Your task to perform on an android device: change alarm snooze length Image 0: 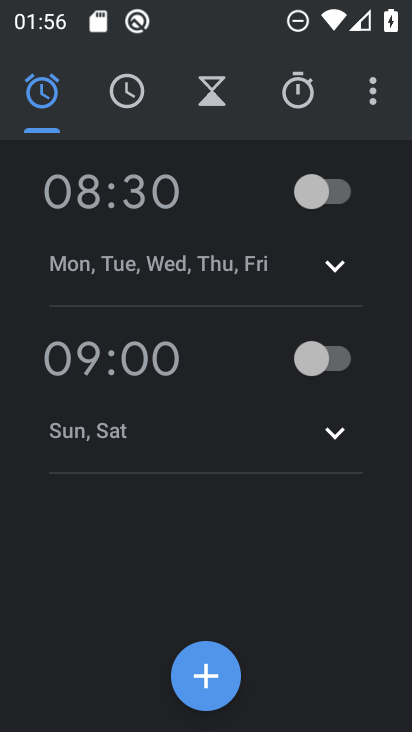
Step 0: click (375, 89)
Your task to perform on an android device: change alarm snooze length Image 1: 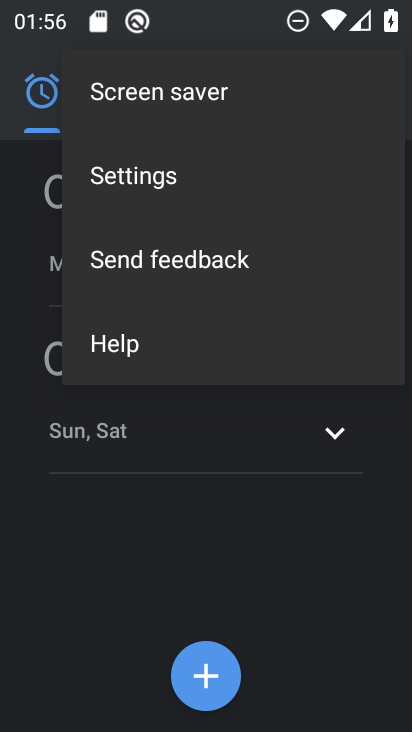
Step 1: click (285, 507)
Your task to perform on an android device: change alarm snooze length Image 2: 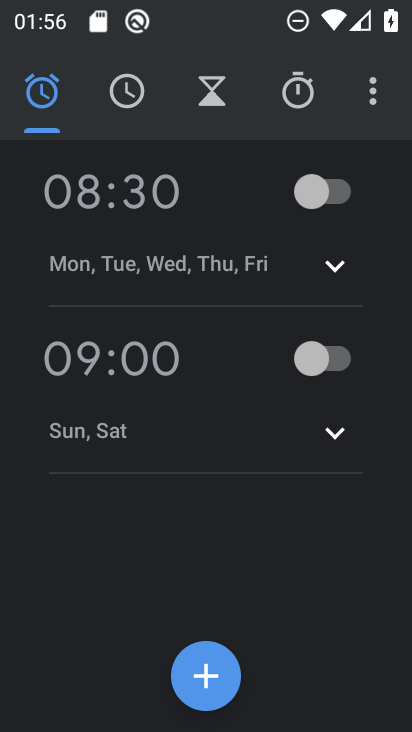
Step 2: click (186, 202)
Your task to perform on an android device: change alarm snooze length Image 3: 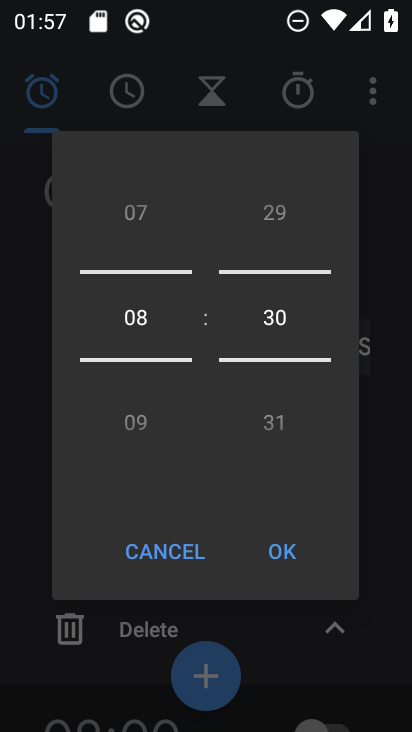
Step 3: click (271, 550)
Your task to perform on an android device: change alarm snooze length Image 4: 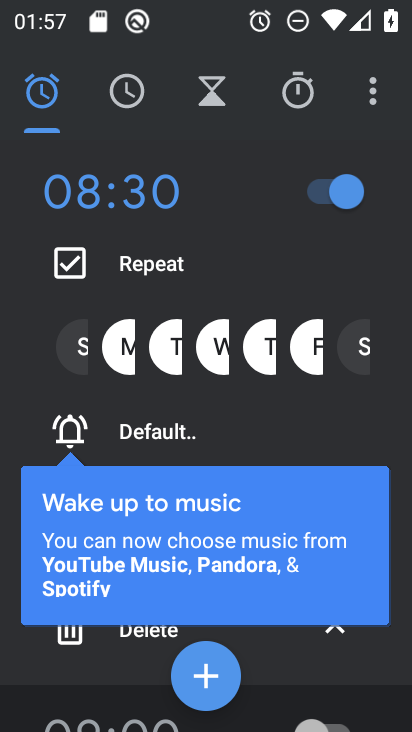
Step 4: drag from (279, 430) to (288, 115)
Your task to perform on an android device: change alarm snooze length Image 5: 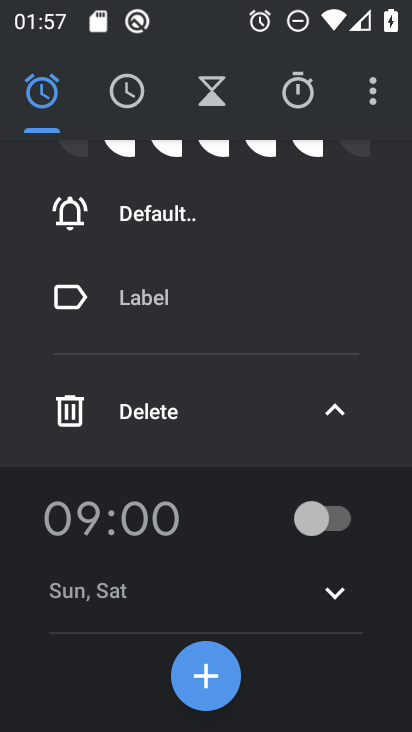
Step 5: click (208, 220)
Your task to perform on an android device: change alarm snooze length Image 6: 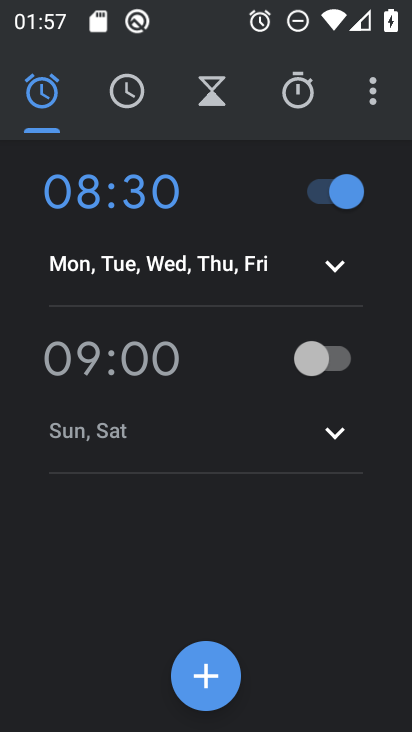
Step 6: click (209, 221)
Your task to perform on an android device: change alarm snooze length Image 7: 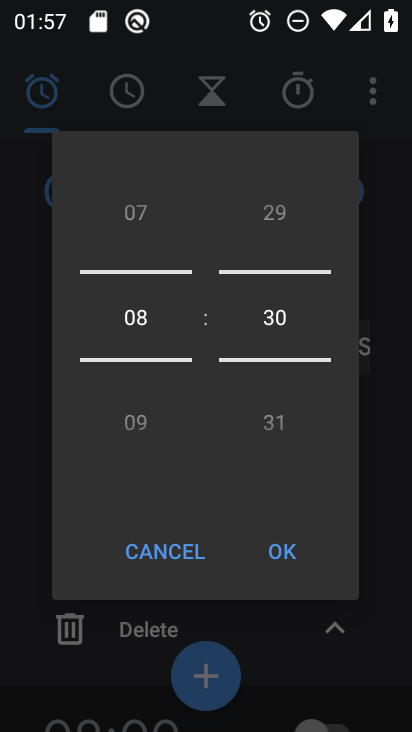
Step 7: click (279, 560)
Your task to perform on an android device: change alarm snooze length Image 8: 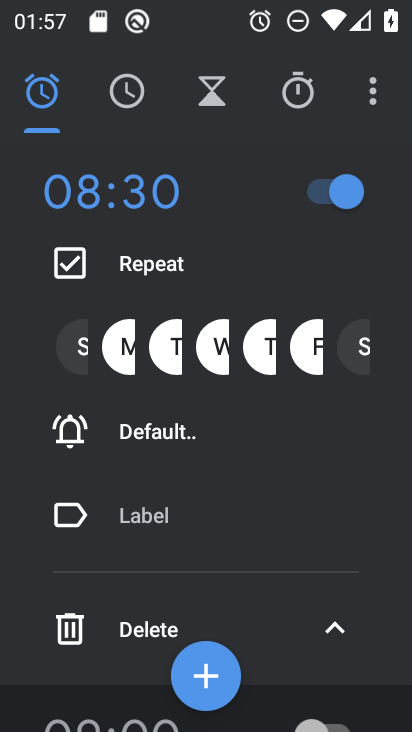
Step 8: click (283, 531)
Your task to perform on an android device: change alarm snooze length Image 9: 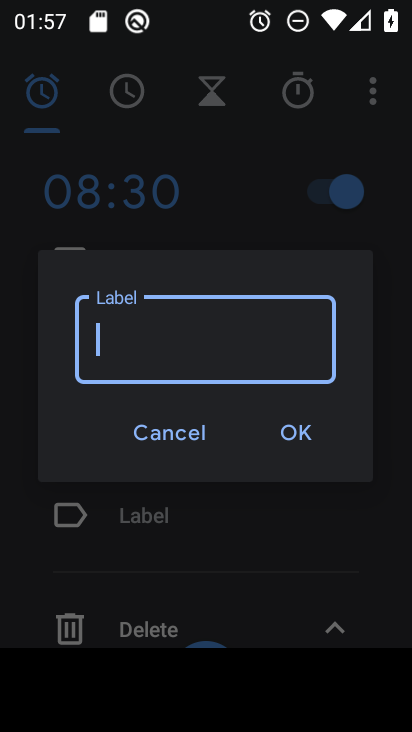
Step 9: click (186, 438)
Your task to perform on an android device: change alarm snooze length Image 10: 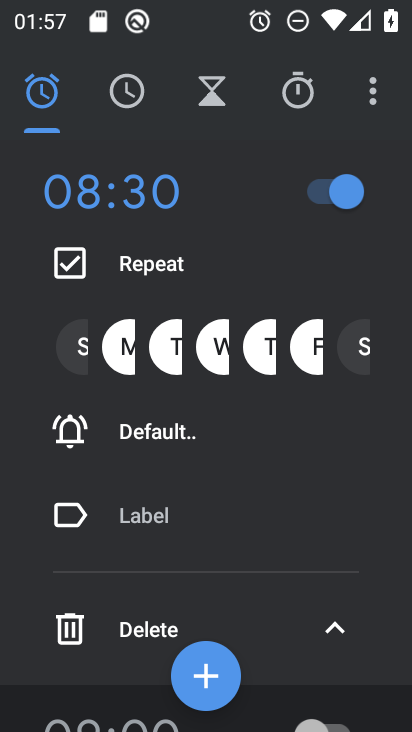
Step 10: click (381, 83)
Your task to perform on an android device: change alarm snooze length Image 11: 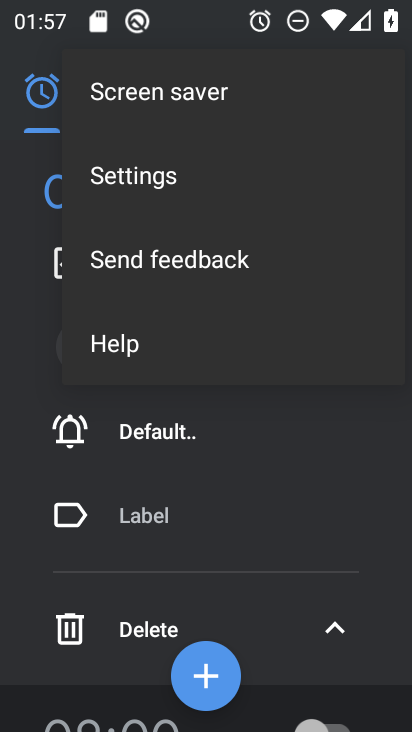
Step 11: click (266, 172)
Your task to perform on an android device: change alarm snooze length Image 12: 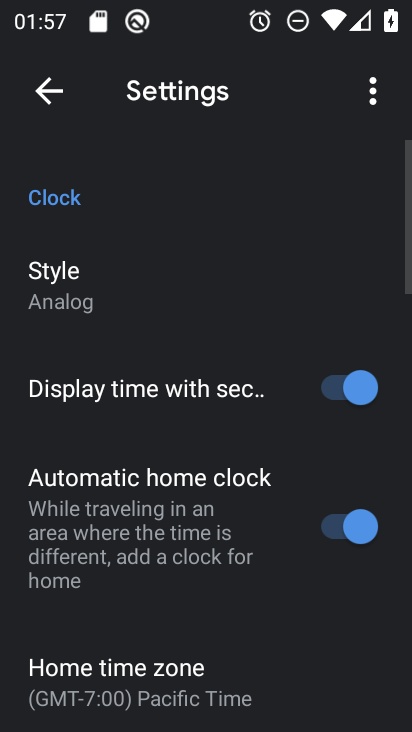
Step 12: drag from (209, 655) to (215, 232)
Your task to perform on an android device: change alarm snooze length Image 13: 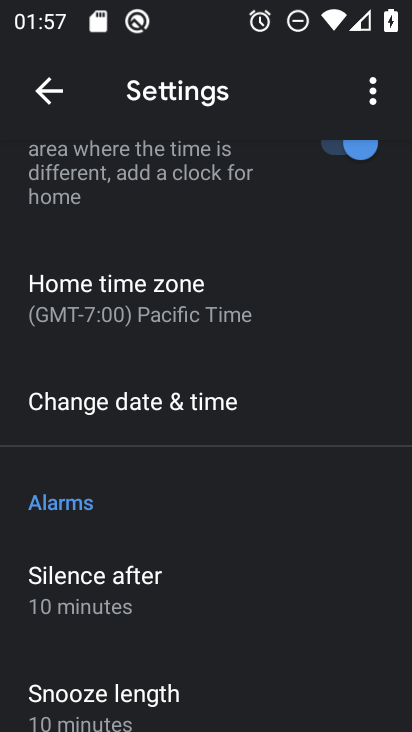
Step 13: drag from (260, 465) to (223, 100)
Your task to perform on an android device: change alarm snooze length Image 14: 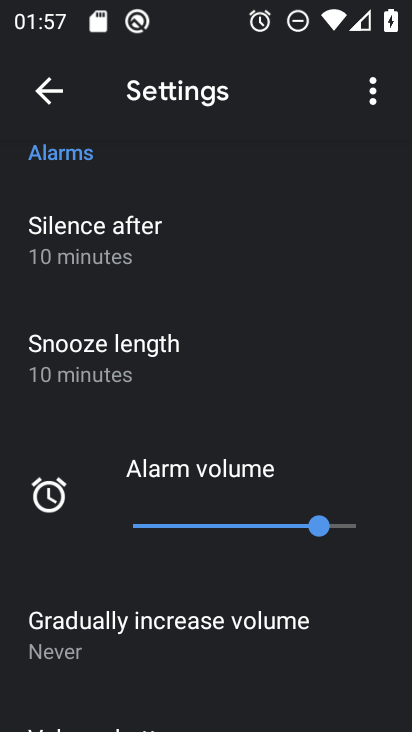
Step 14: click (151, 350)
Your task to perform on an android device: change alarm snooze length Image 15: 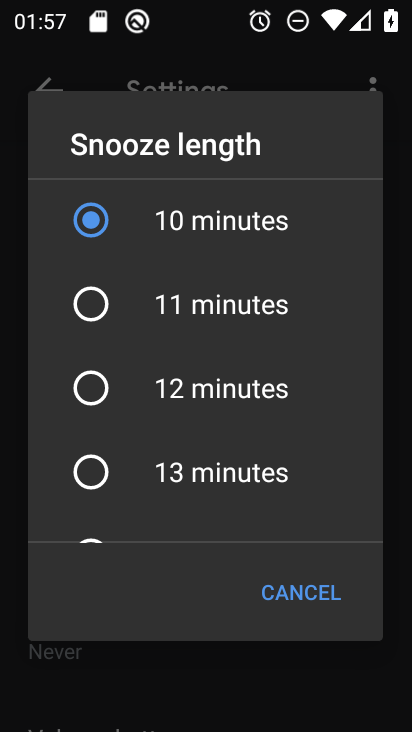
Step 15: click (100, 300)
Your task to perform on an android device: change alarm snooze length Image 16: 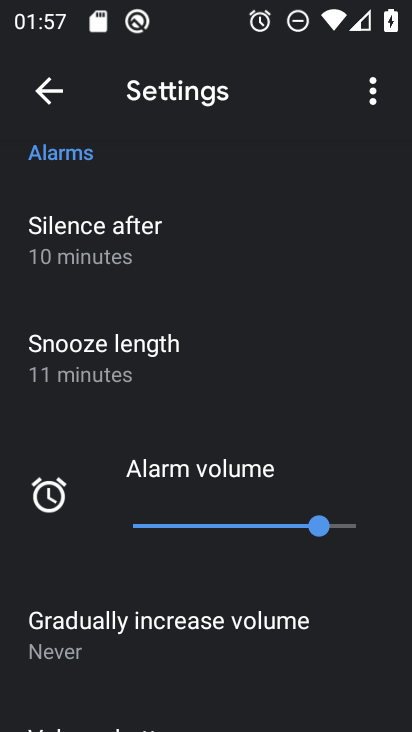
Step 16: task complete